Your task to perform on an android device: turn notification dots off Image 0: 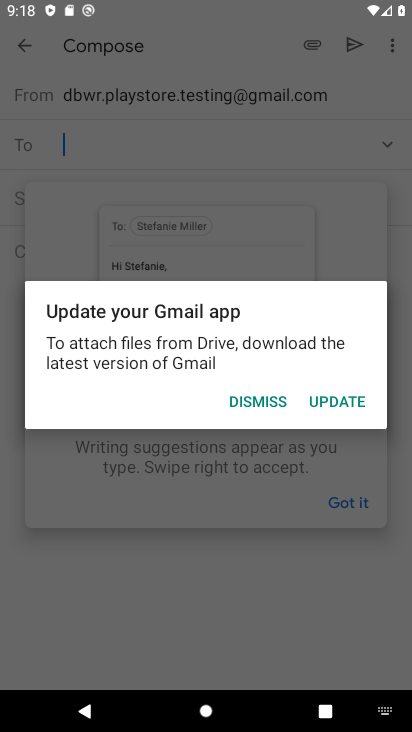
Step 0: press home button
Your task to perform on an android device: turn notification dots off Image 1: 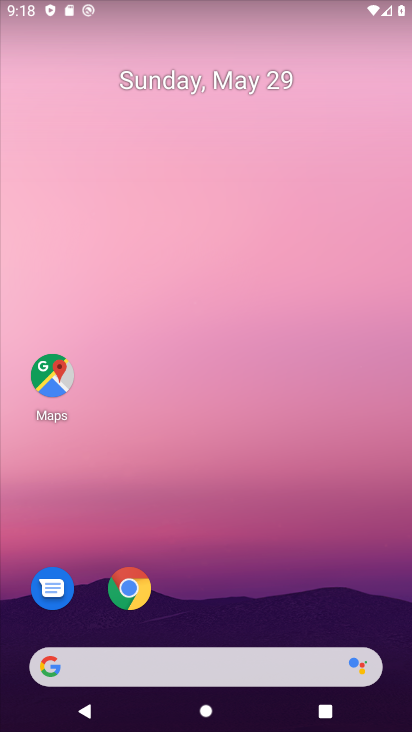
Step 1: drag from (298, 595) to (208, 79)
Your task to perform on an android device: turn notification dots off Image 2: 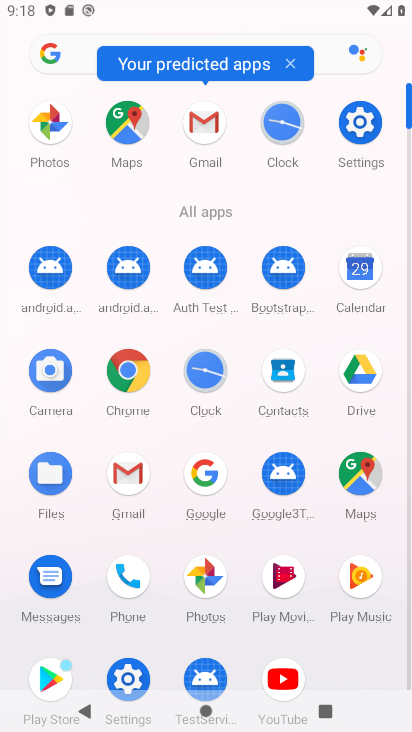
Step 2: click (346, 110)
Your task to perform on an android device: turn notification dots off Image 3: 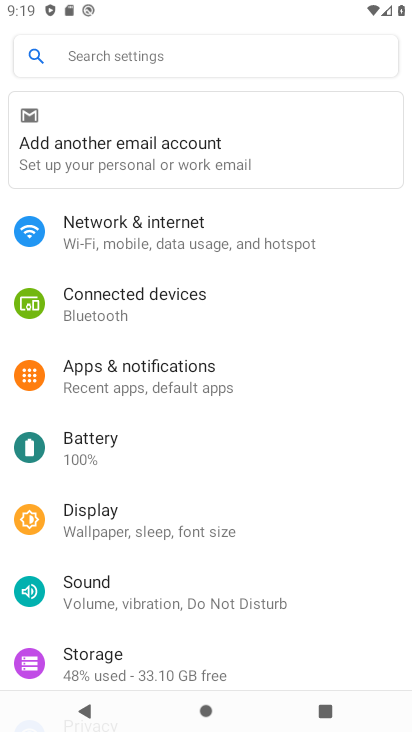
Step 3: click (212, 398)
Your task to perform on an android device: turn notification dots off Image 4: 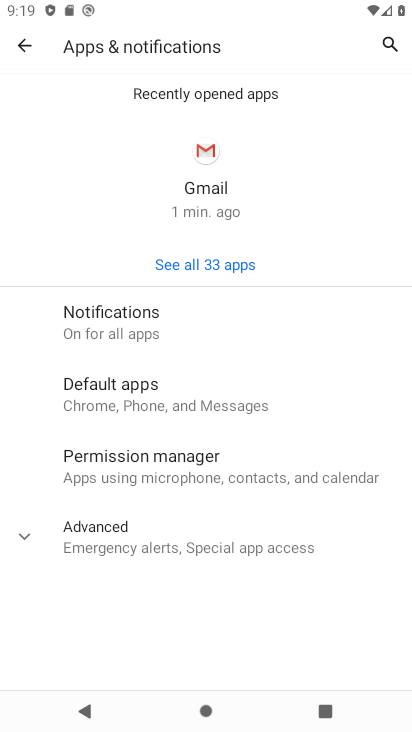
Step 4: click (181, 338)
Your task to perform on an android device: turn notification dots off Image 5: 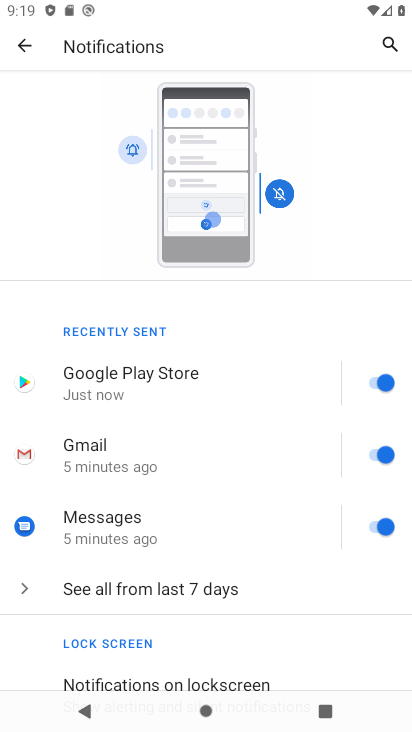
Step 5: drag from (233, 657) to (169, 277)
Your task to perform on an android device: turn notification dots off Image 6: 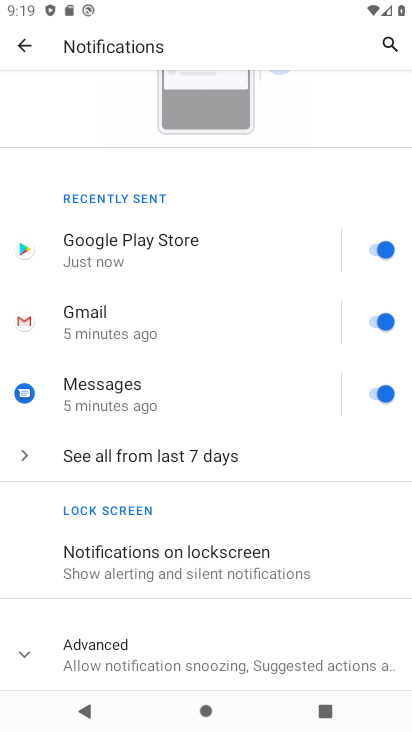
Step 6: drag from (259, 641) to (213, 400)
Your task to perform on an android device: turn notification dots off Image 7: 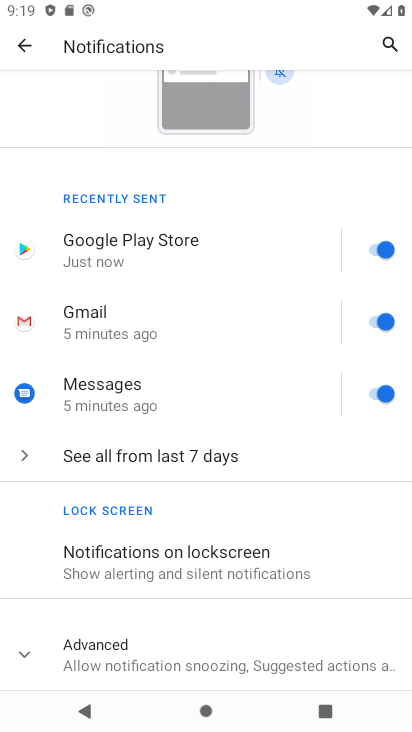
Step 7: click (250, 661)
Your task to perform on an android device: turn notification dots off Image 8: 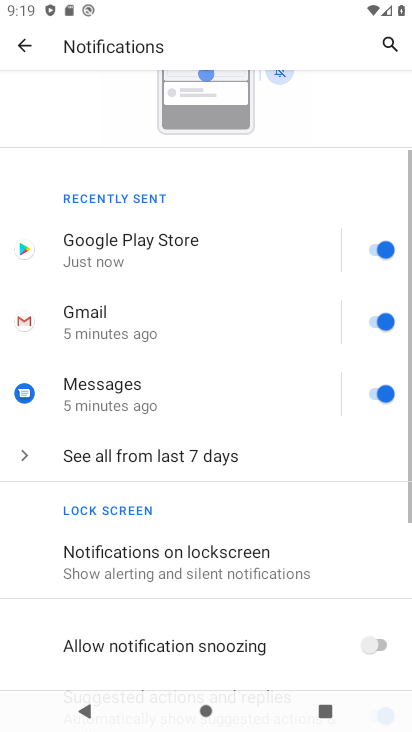
Step 8: drag from (250, 661) to (201, 316)
Your task to perform on an android device: turn notification dots off Image 9: 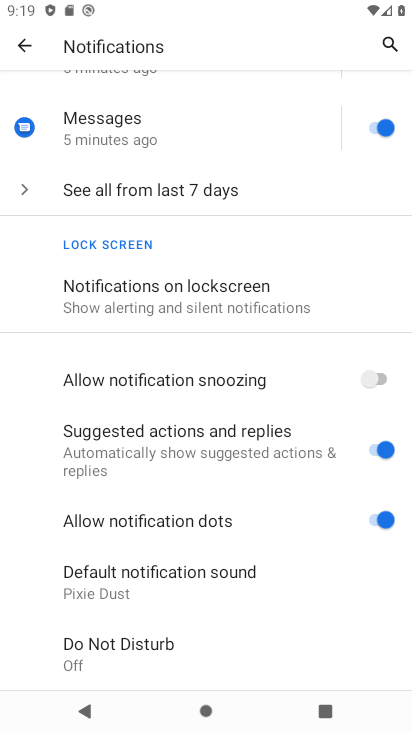
Step 9: click (376, 526)
Your task to perform on an android device: turn notification dots off Image 10: 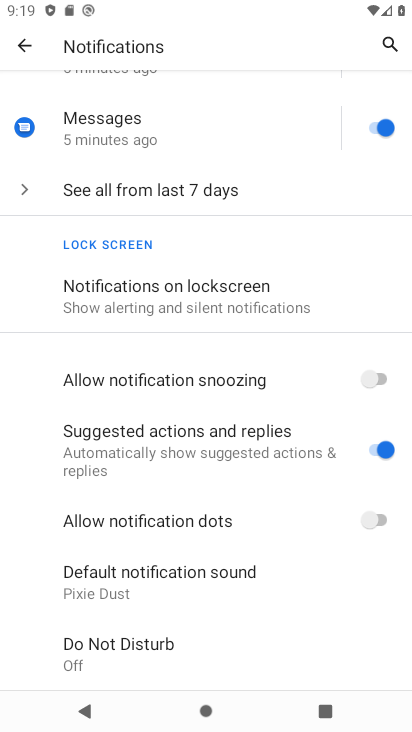
Step 10: task complete